Your task to perform on an android device: Is it going to rain today? Image 0: 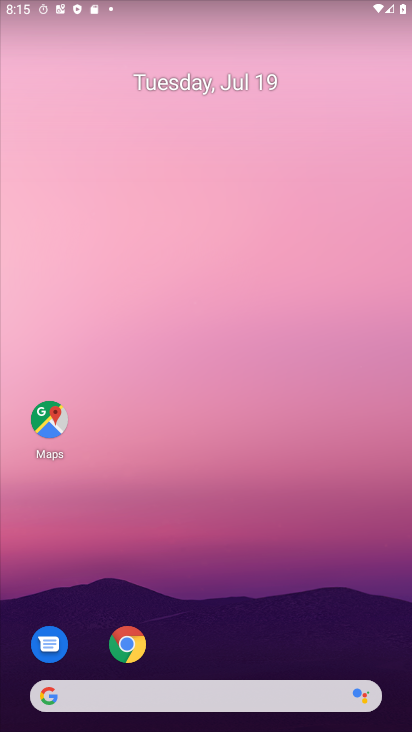
Step 0: click (108, 697)
Your task to perform on an android device: Is it going to rain today? Image 1: 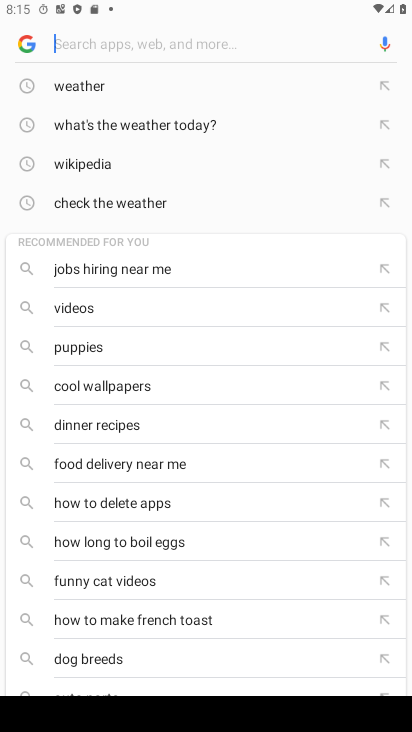
Step 1: click (88, 35)
Your task to perform on an android device: Is it going to rain today? Image 2: 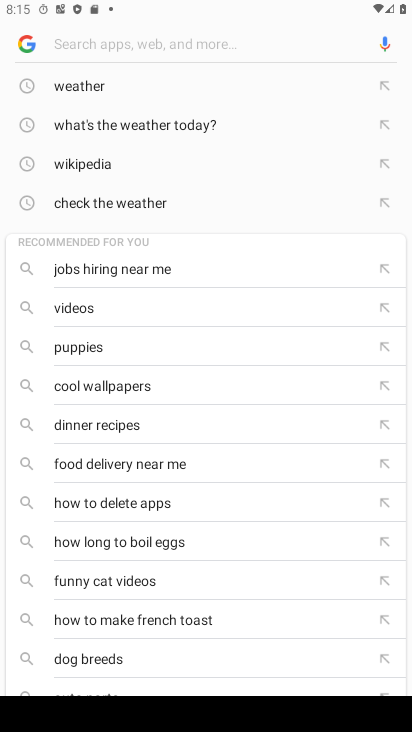
Step 2: type "Is it going to rain today?"
Your task to perform on an android device: Is it going to rain today? Image 3: 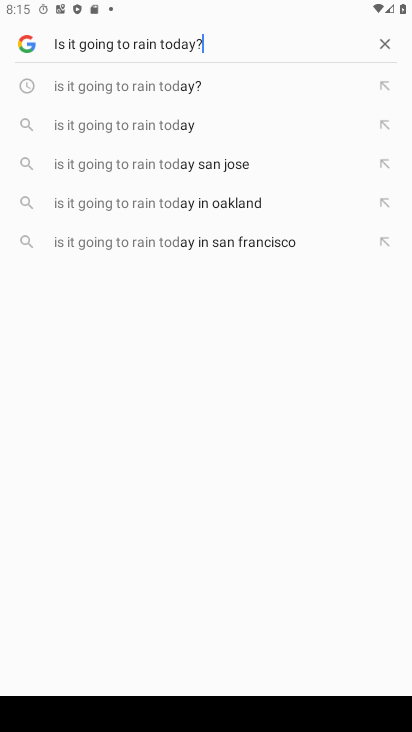
Step 3: type ""
Your task to perform on an android device: Is it going to rain today? Image 4: 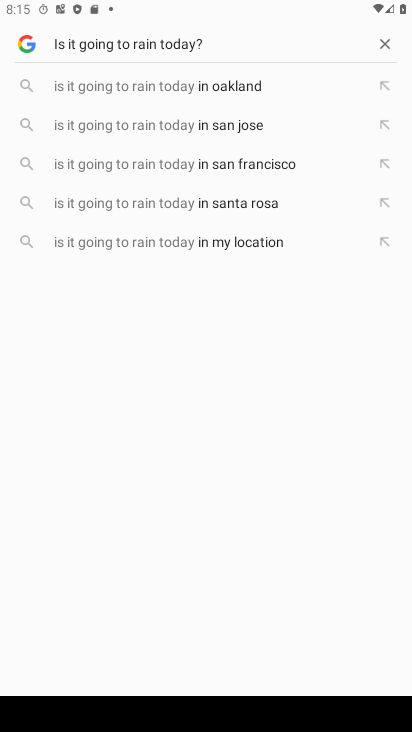
Step 4: type ""
Your task to perform on an android device: Is it going to rain today? Image 5: 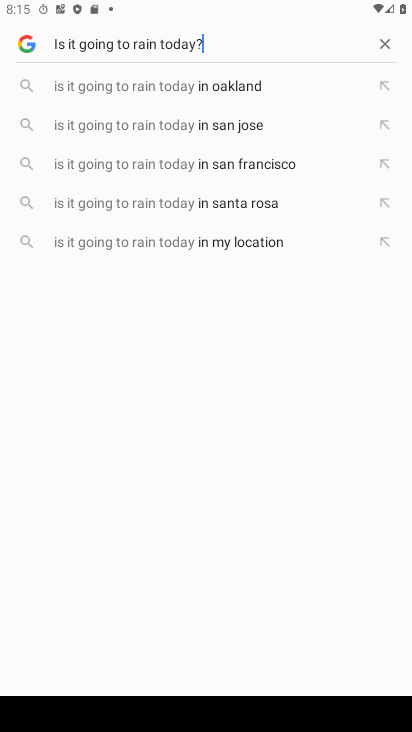
Step 5: type ""
Your task to perform on an android device: Is it going to rain today? Image 6: 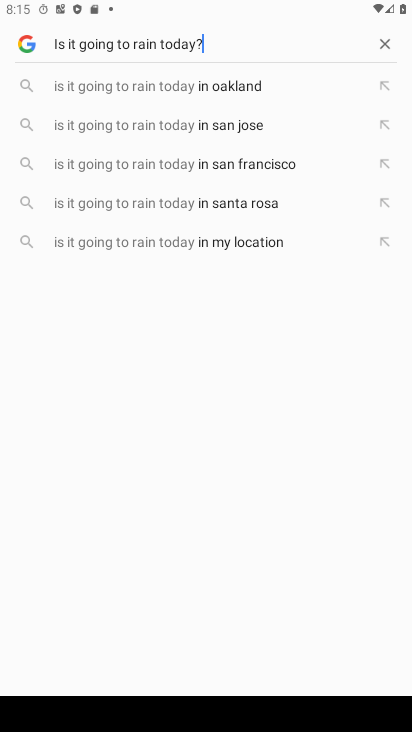
Step 6: task complete